Your task to perform on an android device: see creations saved in the google photos Image 0: 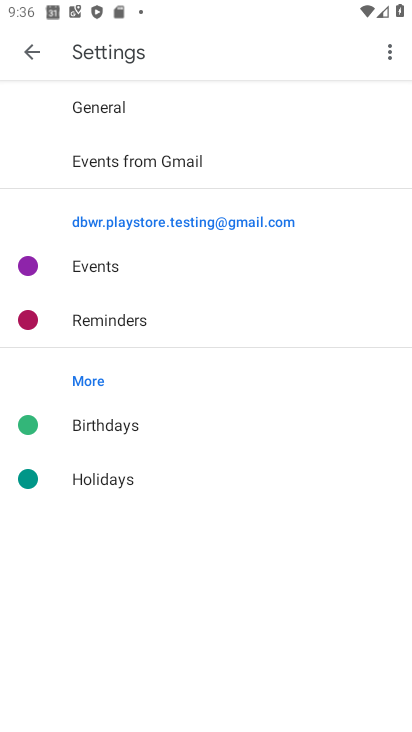
Step 0: press home button
Your task to perform on an android device: see creations saved in the google photos Image 1: 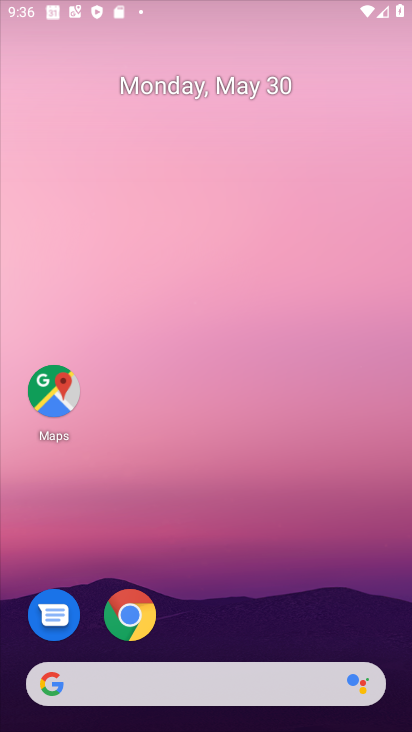
Step 1: drag from (277, 541) to (238, 45)
Your task to perform on an android device: see creations saved in the google photos Image 2: 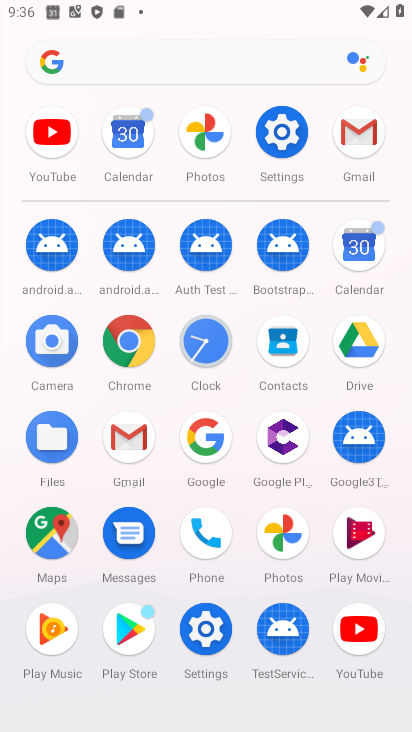
Step 2: click (286, 540)
Your task to perform on an android device: see creations saved in the google photos Image 3: 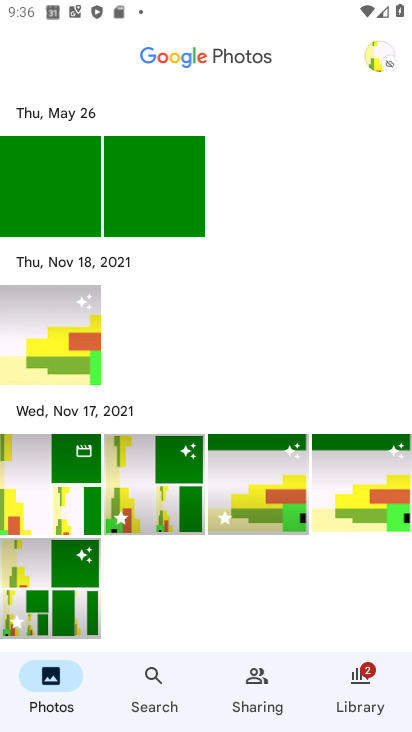
Step 3: click (209, 58)
Your task to perform on an android device: see creations saved in the google photos Image 4: 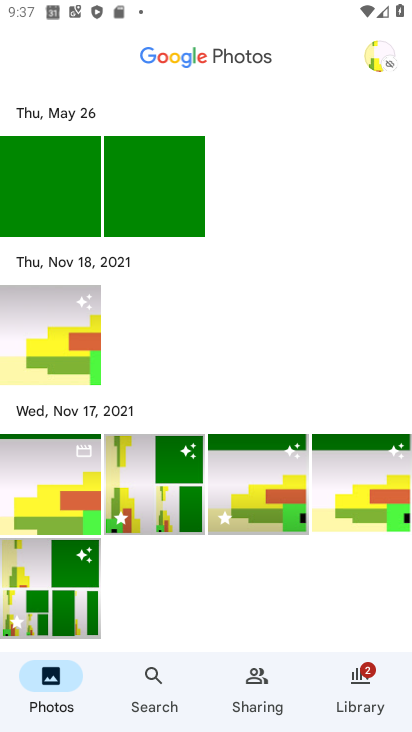
Step 4: click (152, 692)
Your task to perform on an android device: see creations saved in the google photos Image 5: 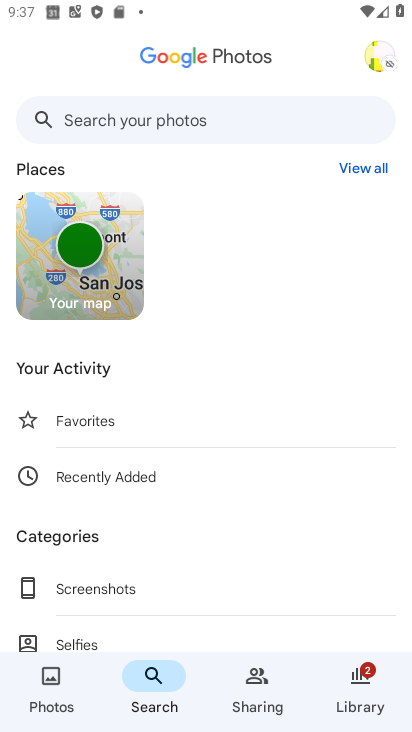
Step 5: click (180, 61)
Your task to perform on an android device: see creations saved in the google photos Image 6: 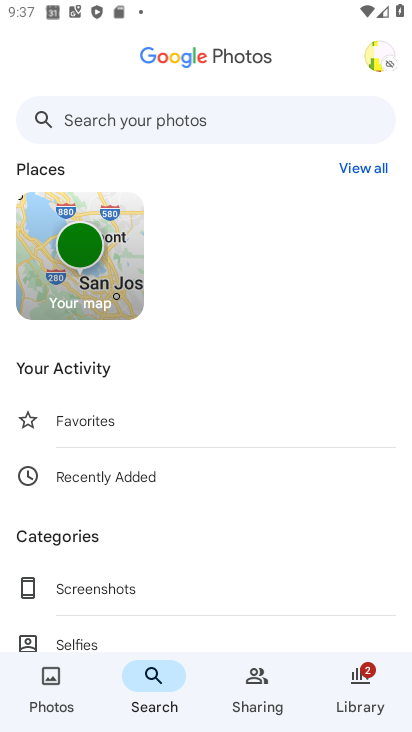
Step 6: click (145, 124)
Your task to perform on an android device: see creations saved in the google photos Image 7: 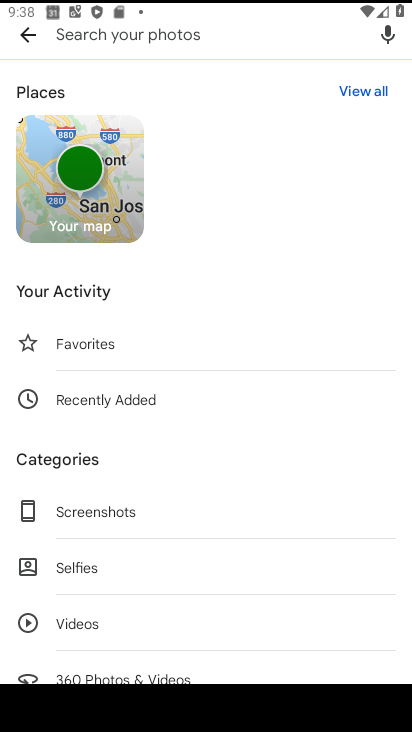
Step 7: type "creations"
Your task to perform on an android device: see creations saved in the google photos Image 8: 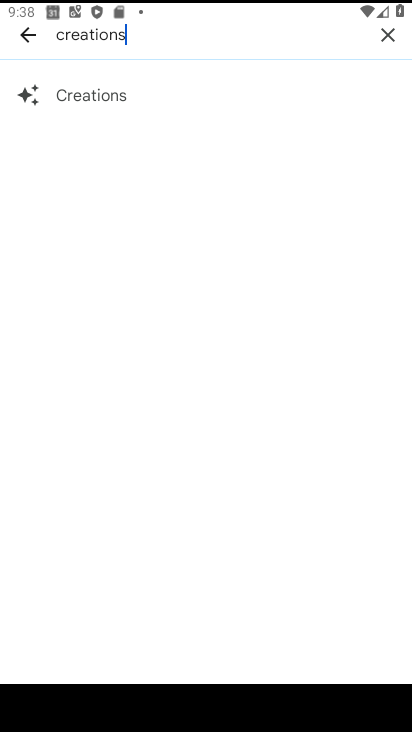
Step 8: click (86, 100)
Your task to perform on an android device: see creations saved in the google photos Image 9: 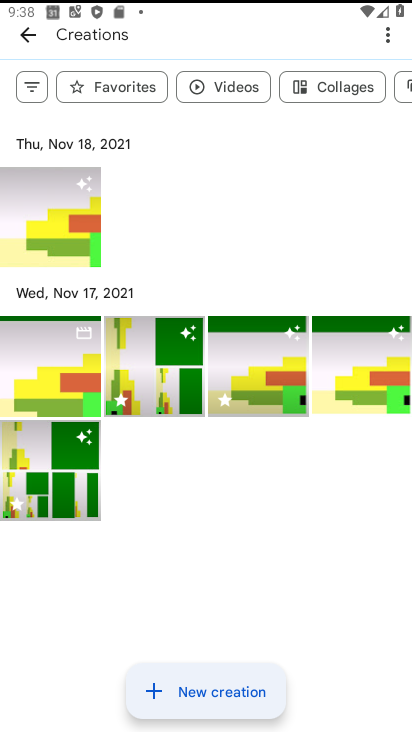
Step 9: task complete